Your task to perform on an android device: Open location settings Image 0: 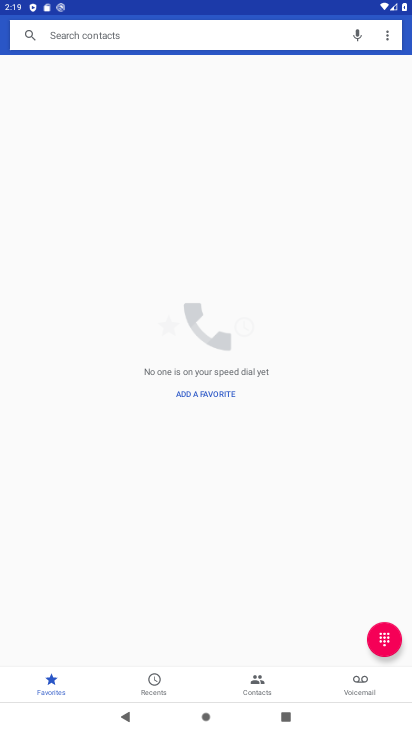
Step 0: press home button
Your task to perform on an android device: Open location settings Image 1: 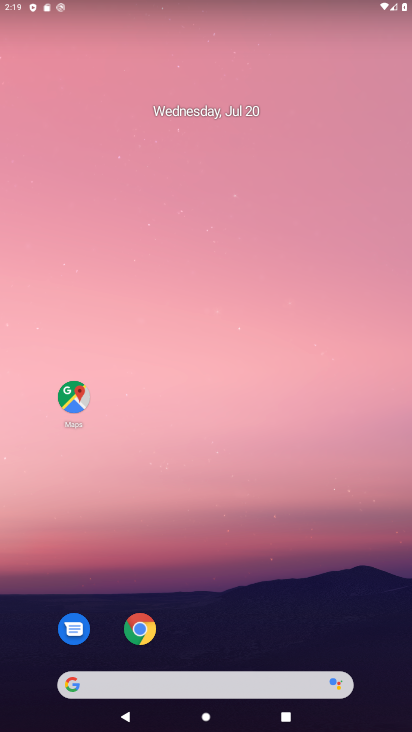
Step 1: drag from (208, 660) to (267, 110)
Your task to perform on an android device: Open location settings Image 2: 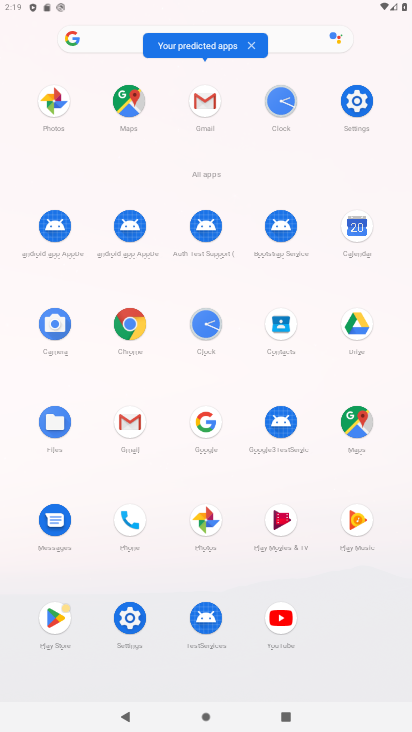
Step 2: click (132, 630)
Your task to perform on an android device: Open location settings Image 3: 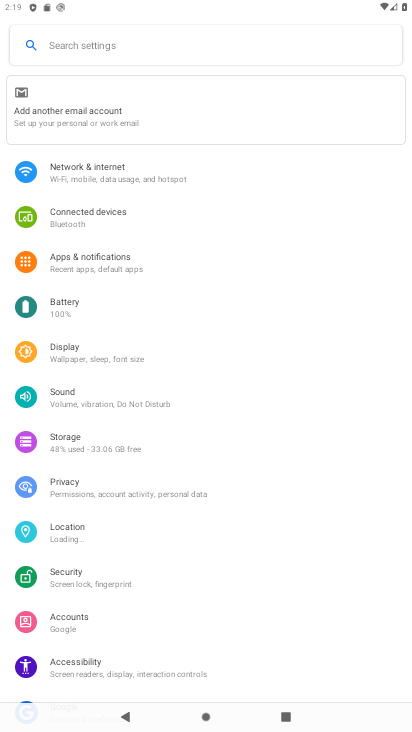
Step 3: click (100, 543)
Your task to perform on an android device: Open location settings Image 4: 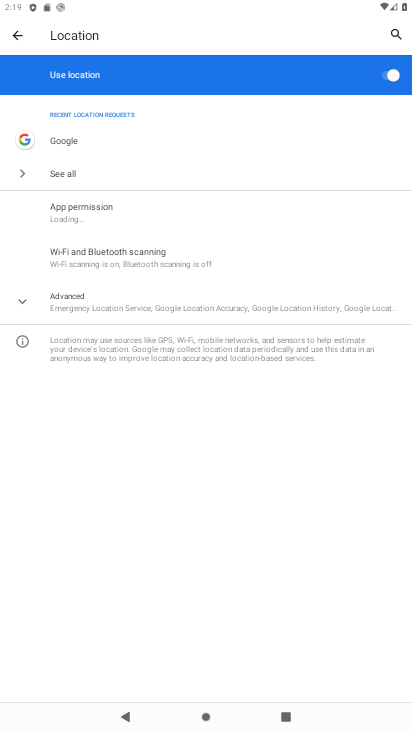
Step 4: task complete